Your task to perform on an android device: Go to CNN.com Image 0: 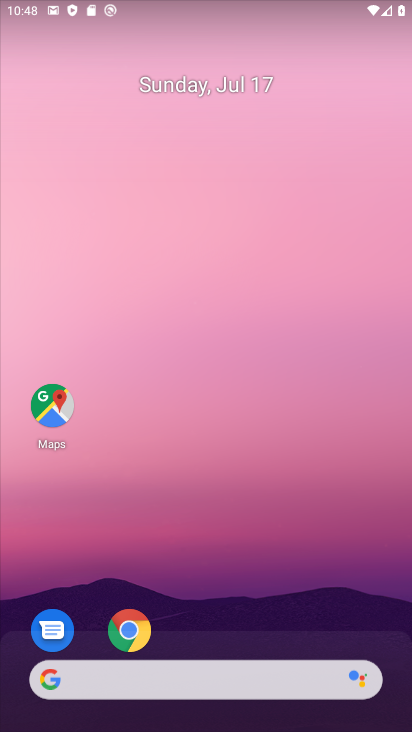
Step 0: click (125, 628)
Your task to perform on an android device: Go to CNN.com Image 1: 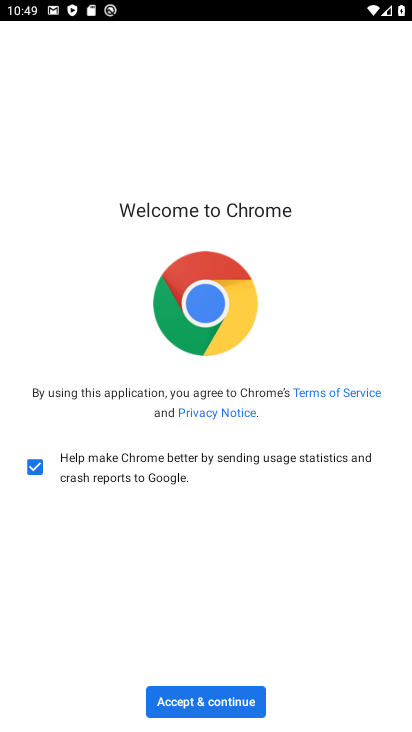
Step 1: click (220, 696)
Your task to perform on an android device: Go to CNN.com Image 2: 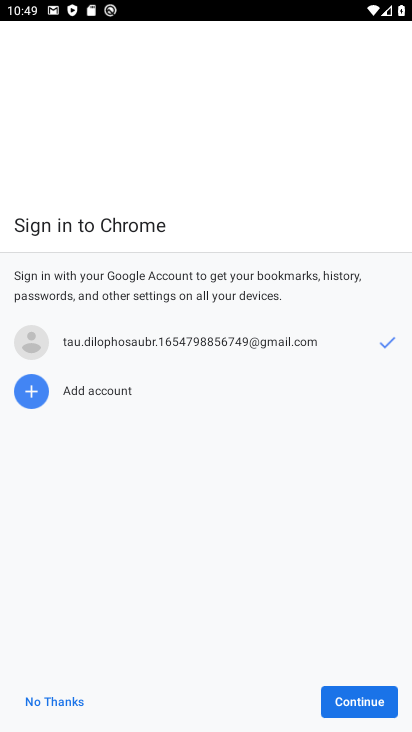
Step 2: click (334, 702)
Your task to perform on an android device: Go to CNN.com Image 3: 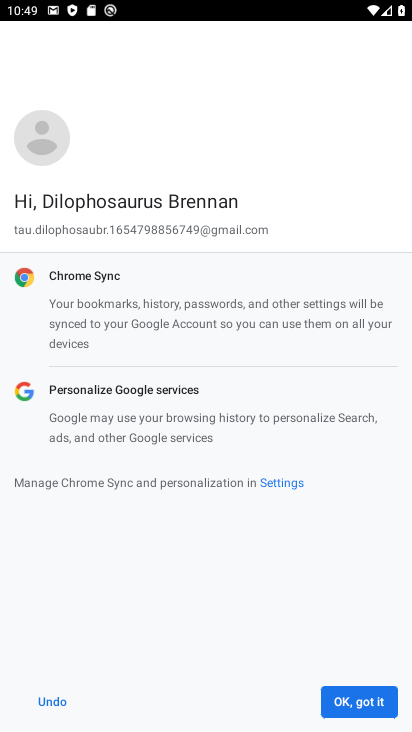
Step 3: click (347, 704)
Your task to perform on an android device: Go to CNN.com Image 4: 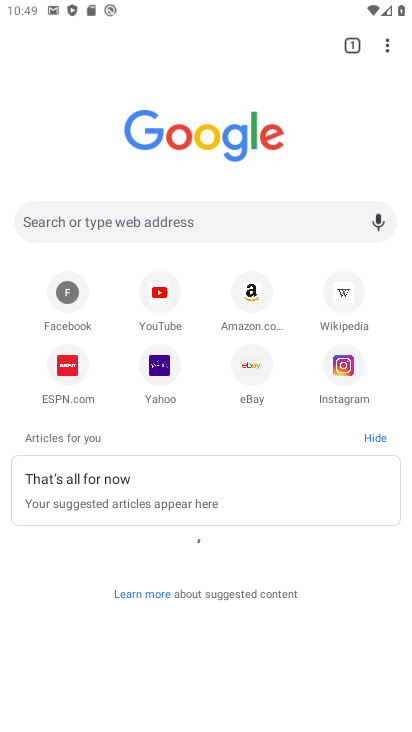
Step 4: click (138, 228)
Your task to perform on an android device: Go to CNN.com Image 5: 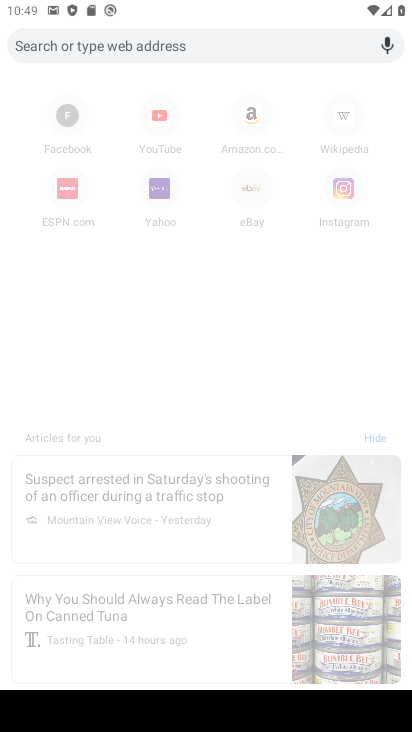
Step 5: type "CNN.com"
Your task to perform on an android device: Go to CNN.com Image 6: 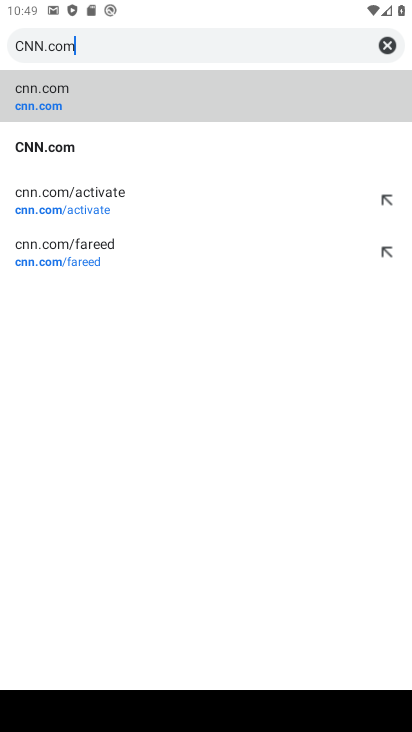
Step 6: click (112, 106)
Your task to perform on an android device: Go to CNN.com Image 7: 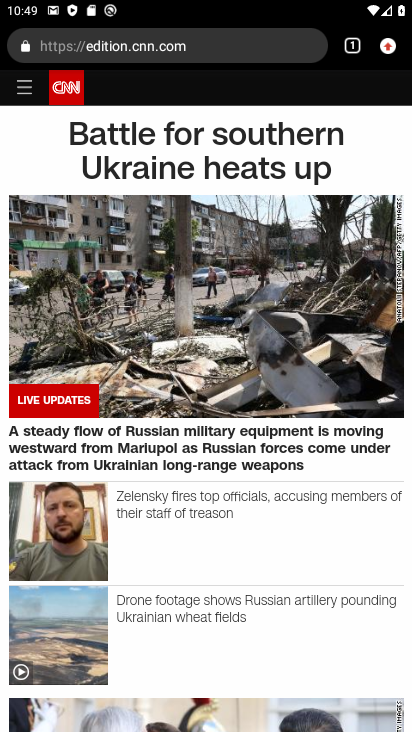
Step 7: task complete